Your task to perform on an android device: Search for a 1/4" hex shank drill bit on Lowe's. Image 0: 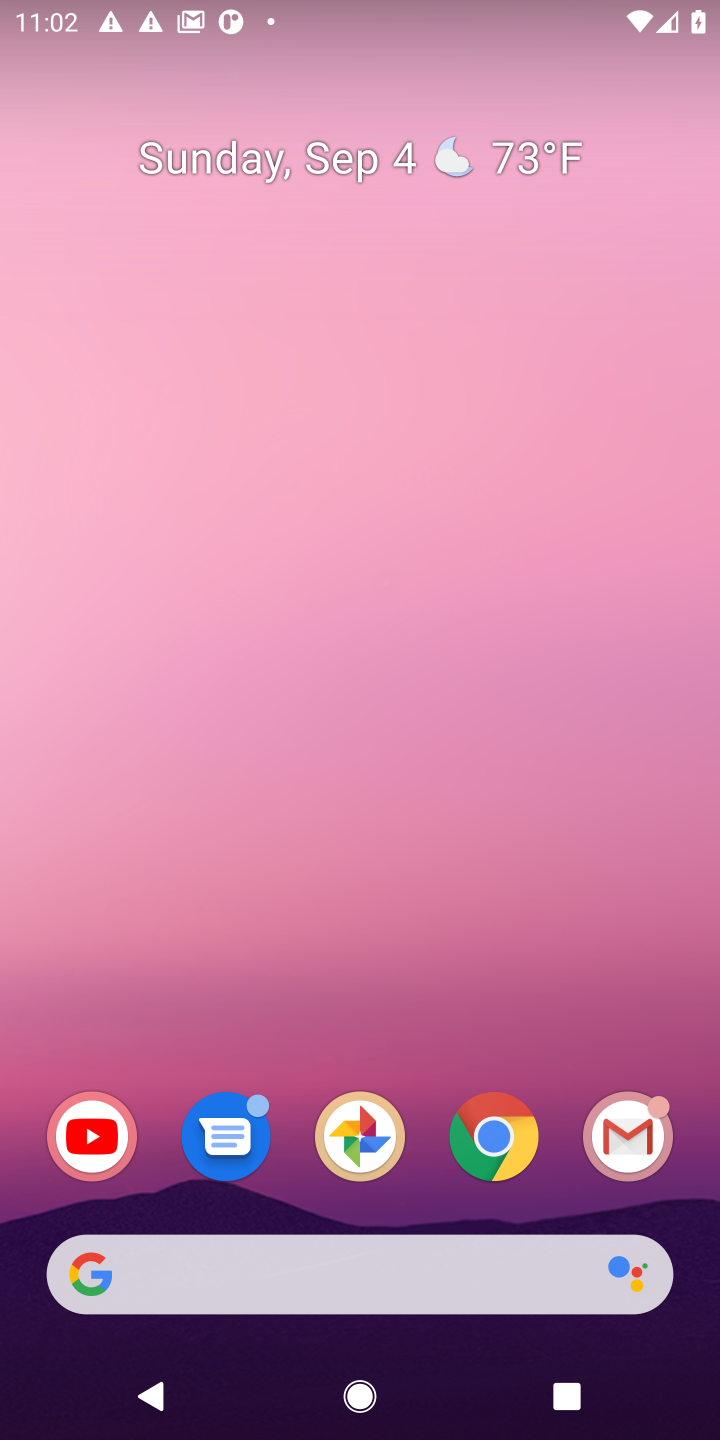
Step 0: click (485, 1131)
Your task to perform on an android device: Search for a 1/4" hex shank drill bit on Lowe's. Image 1: 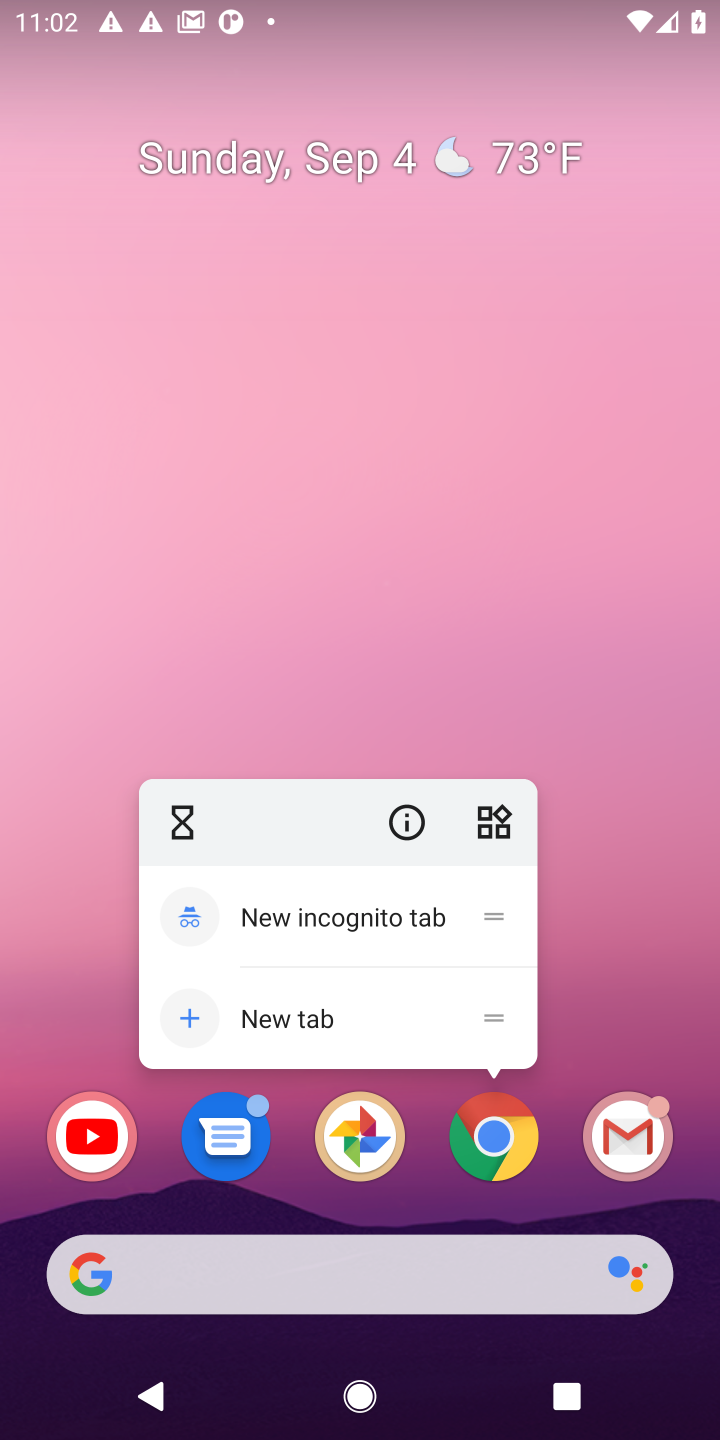
Step 1: click (485, 1134)
Your task to perform on an android device: Search for a 1/4" hex shank drill bit on Lowe's. Image 2: 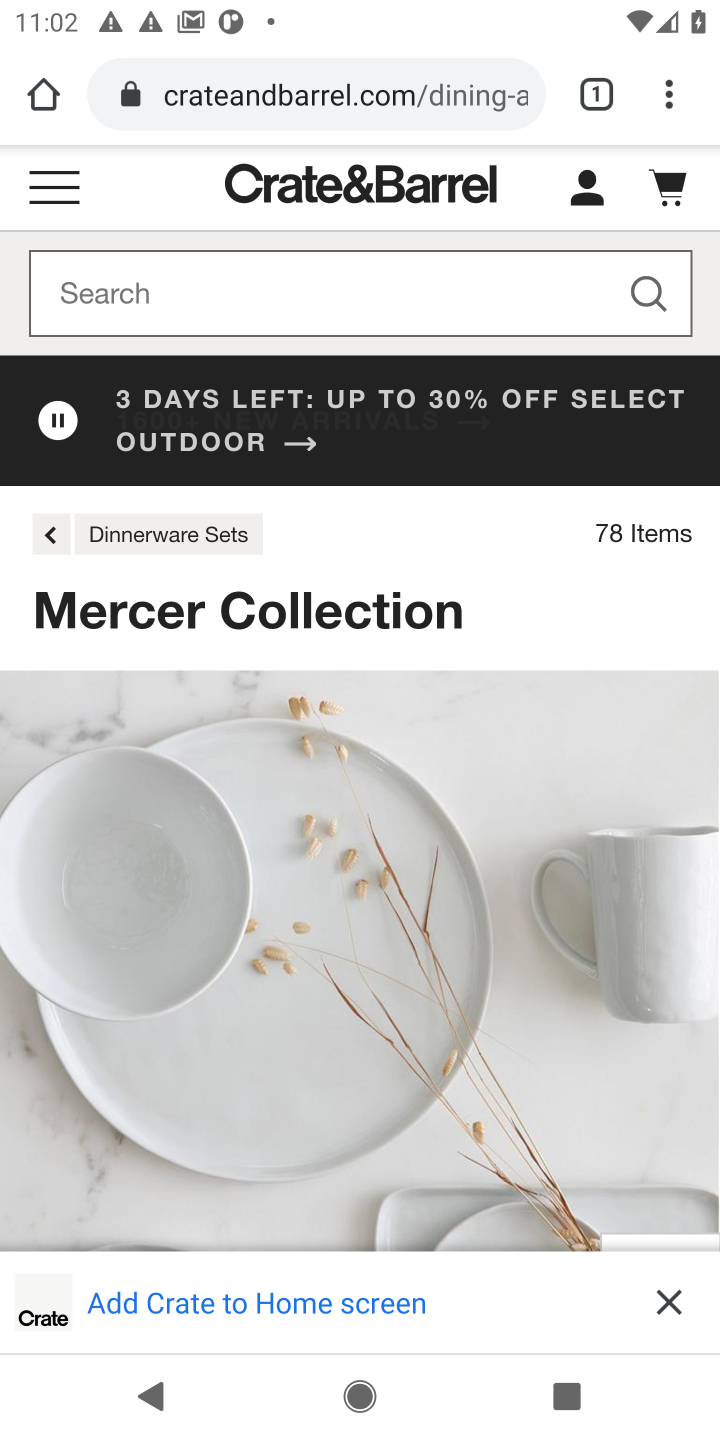
Step 2: click (441, 102)
Your task to perform on an android device: Search for a 1/4" hex shank drill bit on Lowe's. Image 3: 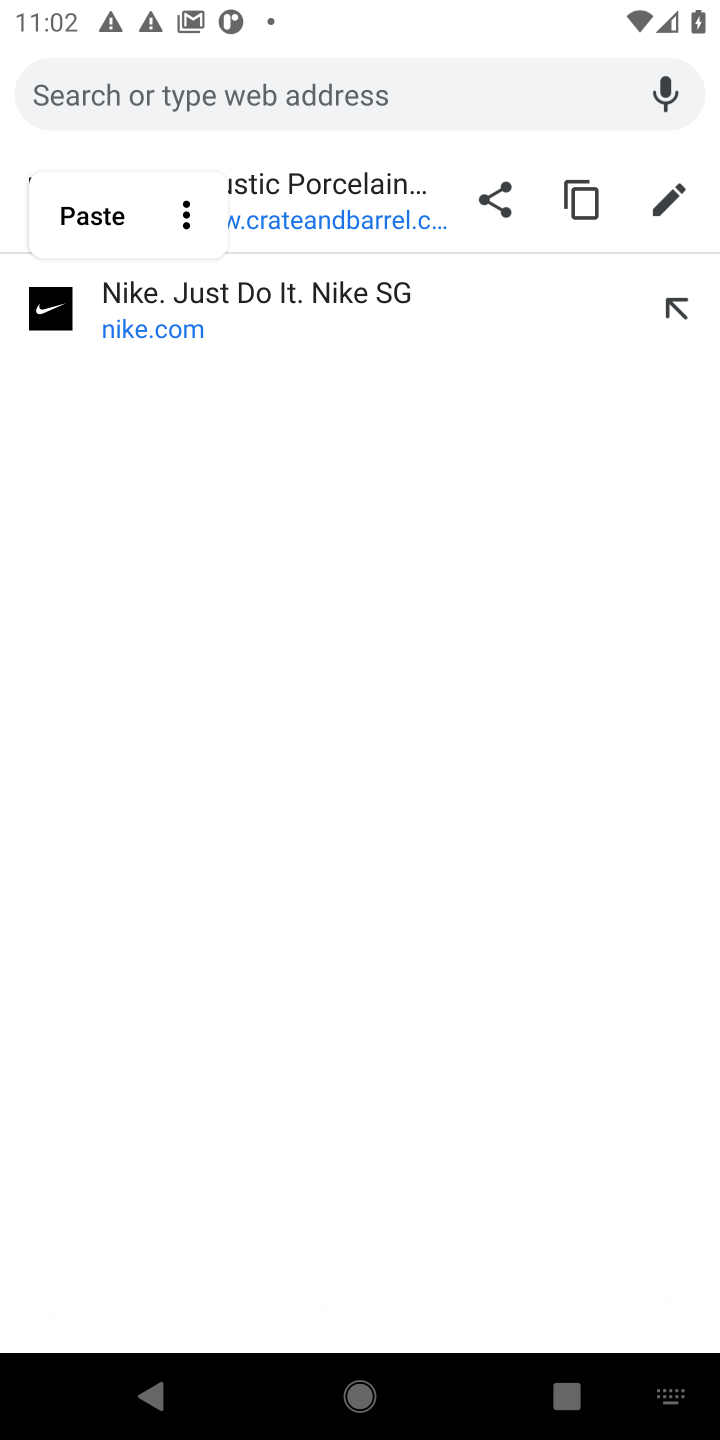
Step 3: type "Lowe's"
Your task to perform on an android device: Search for a 1/4" hex shank drill bit on Lowe's. Image 4: 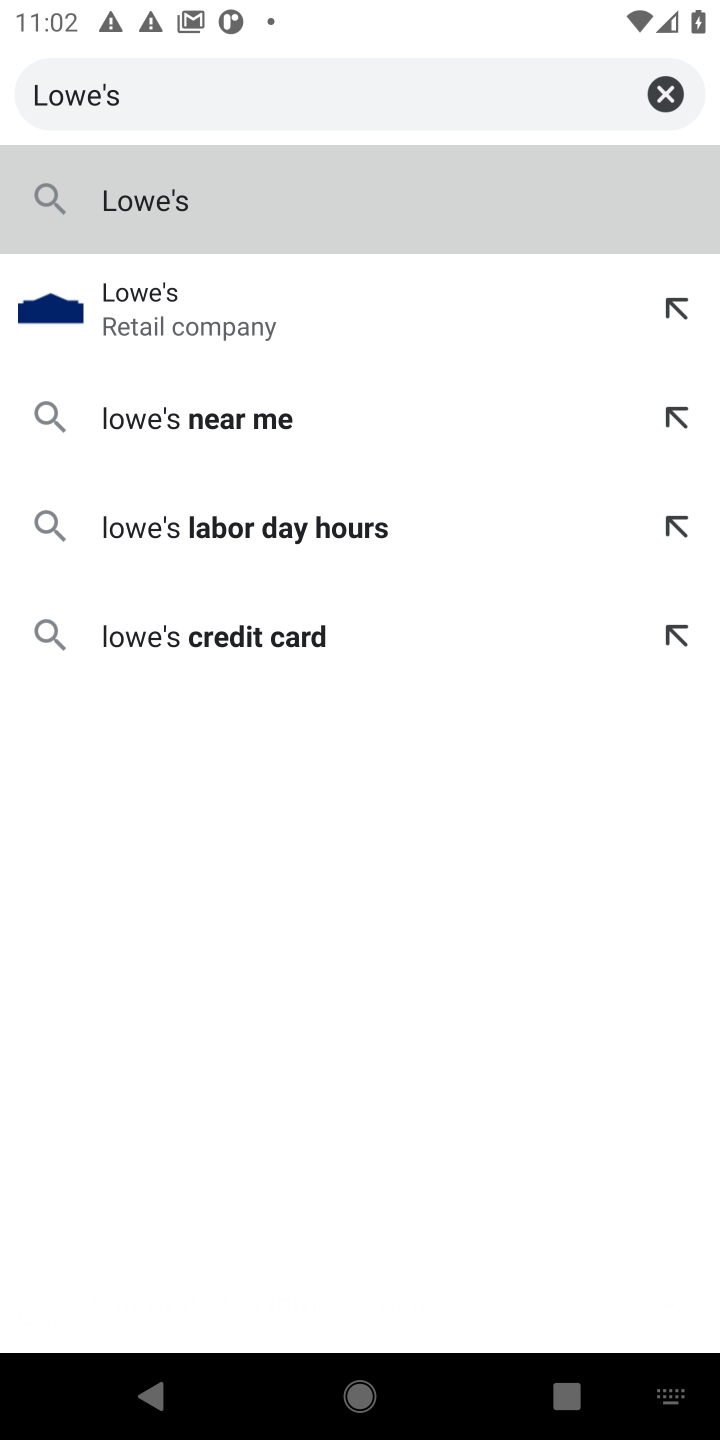
Step 4: press enter
Your task to perform on an android device: Search for a 1/4" hex shank drill bit on Lowe's. Image 5: 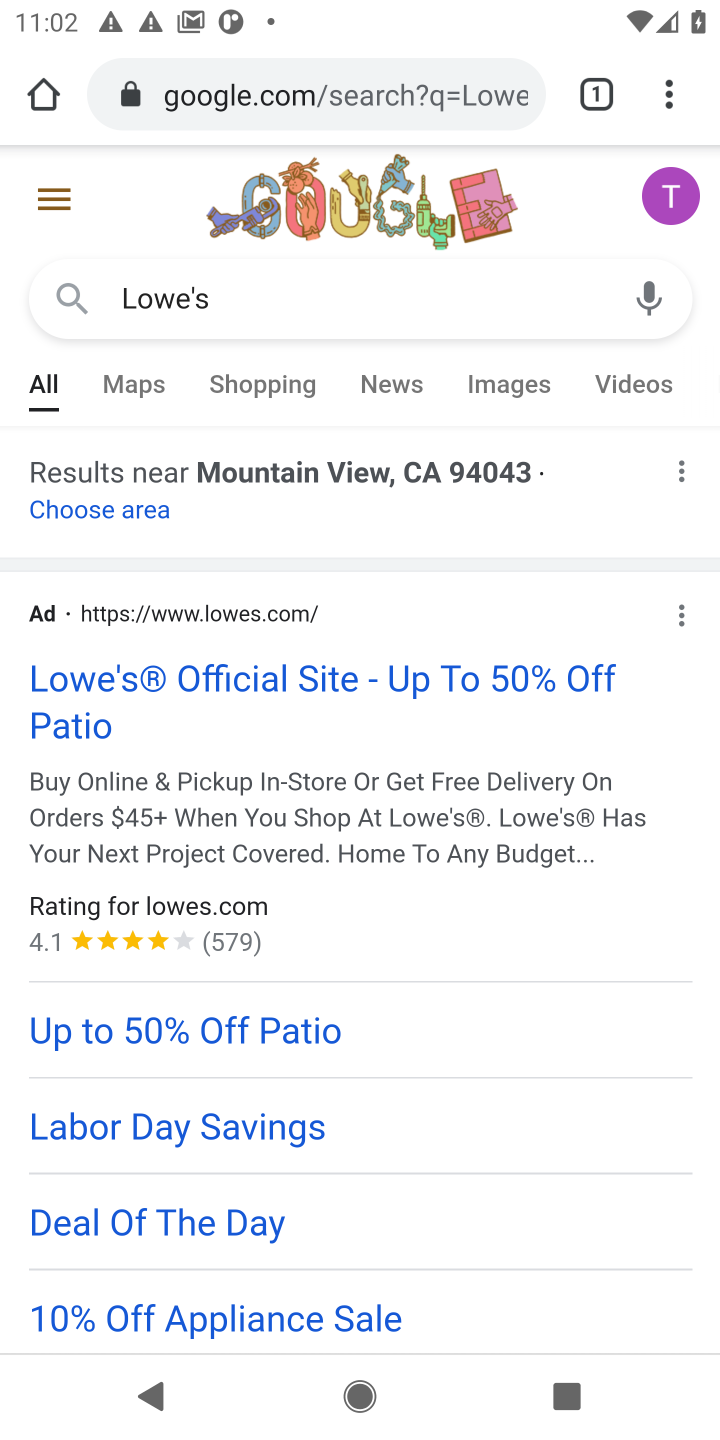
Step 5: click (247, 670)
Your task to perform on an android device: Search for a 1/4" hex shank drill bit on Lowe's. Image 6: 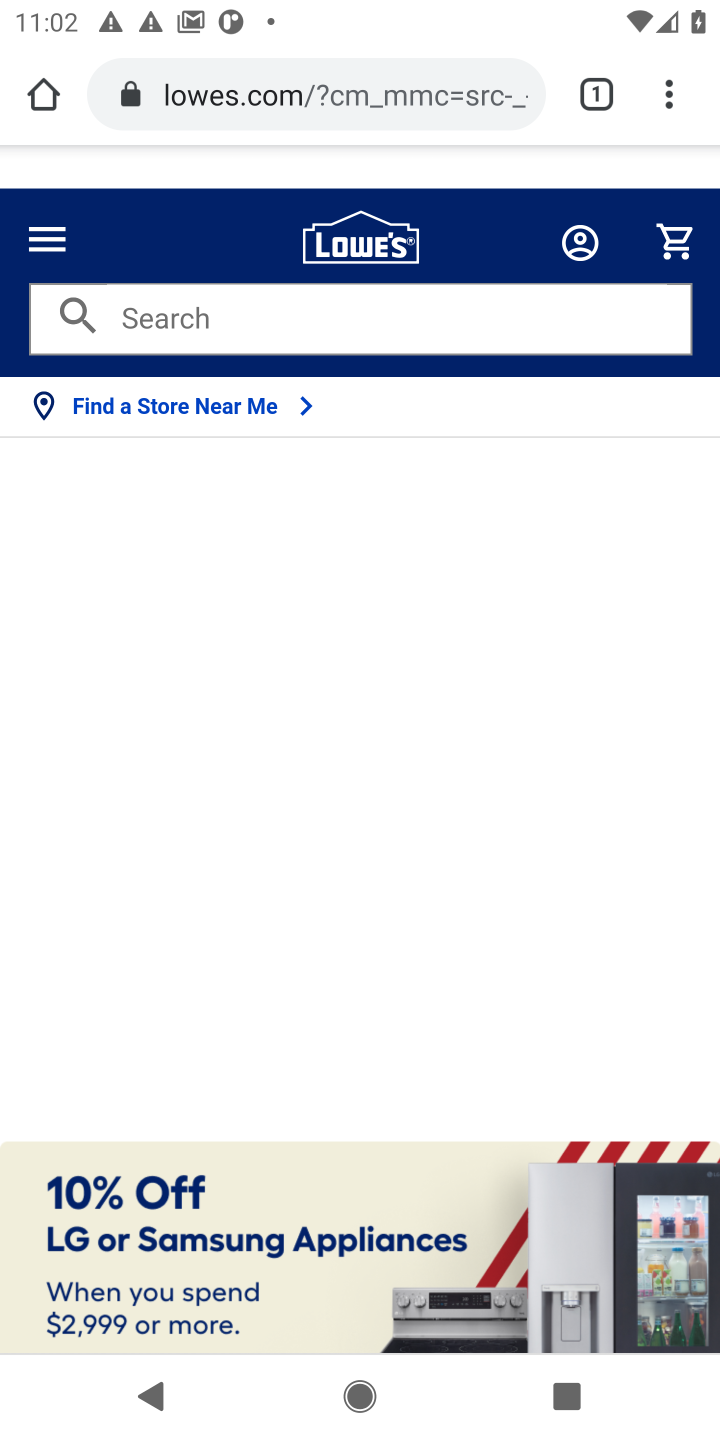
Step 6: click (300, 311)
Your task to perform on an android device: Search for a 1/4" hex shank drill bit on Lowe's. Image 7: 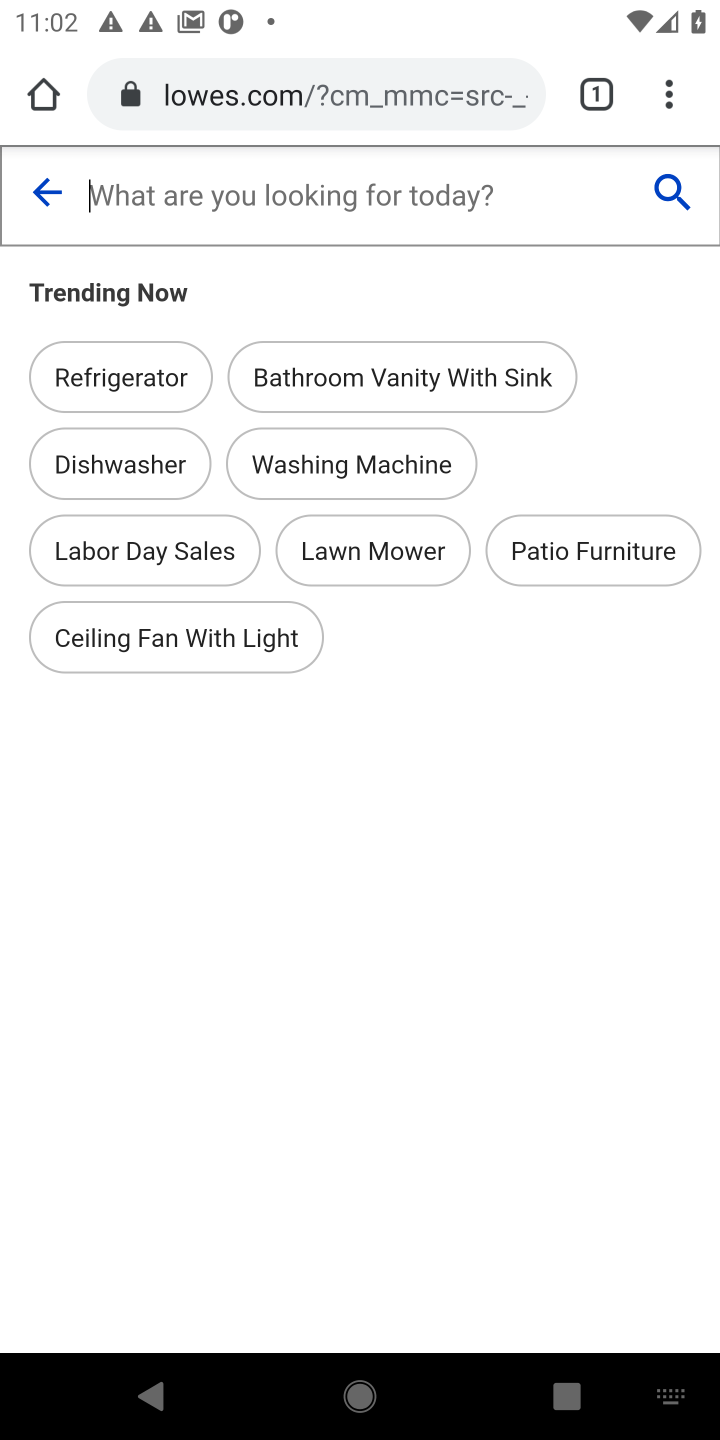
Step 7: press enter
Your task to perform on an android device: Search for a 1/4" hex shank drill bit on Lowe's. Image 8: 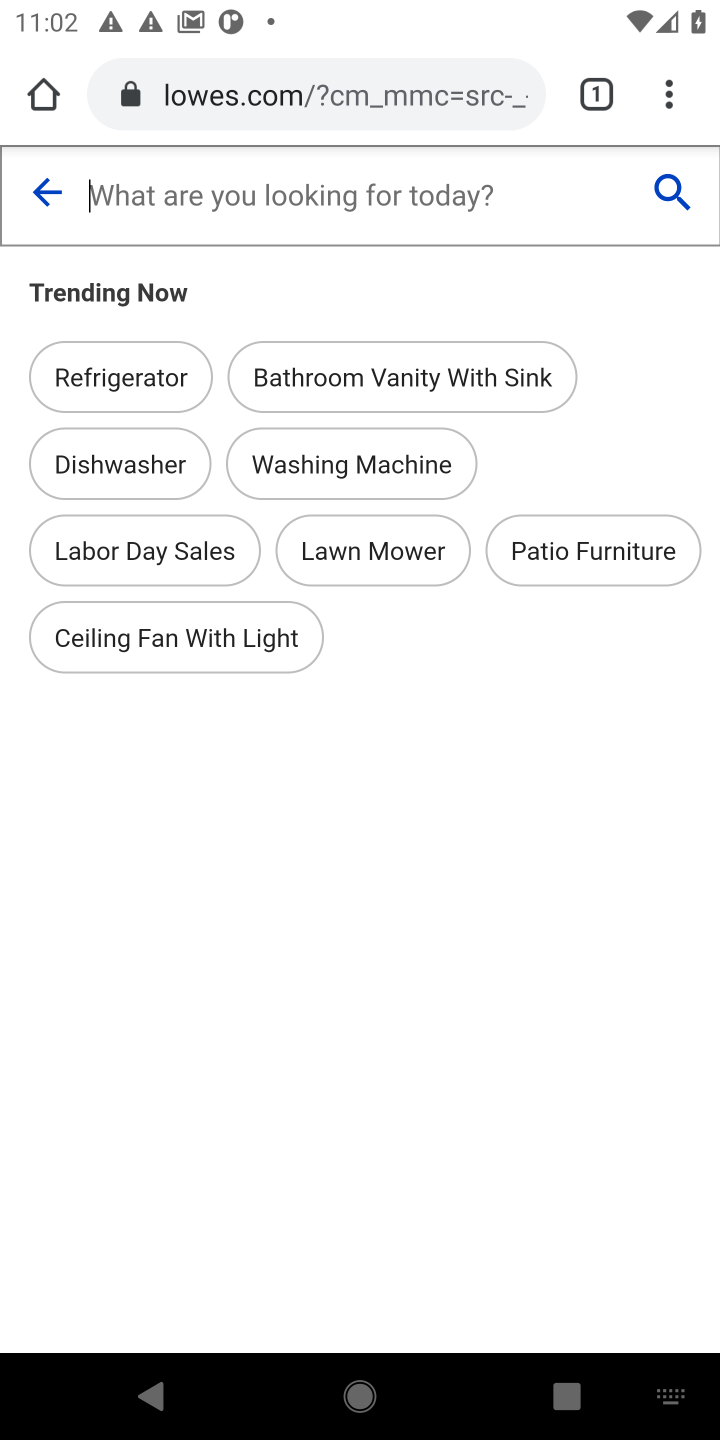
Step 8: type "1/4 hex shank drill bit"
Your task to perform on an android device: Search for a 1/4" hex shank drill bit on Lowe's. Image 9: 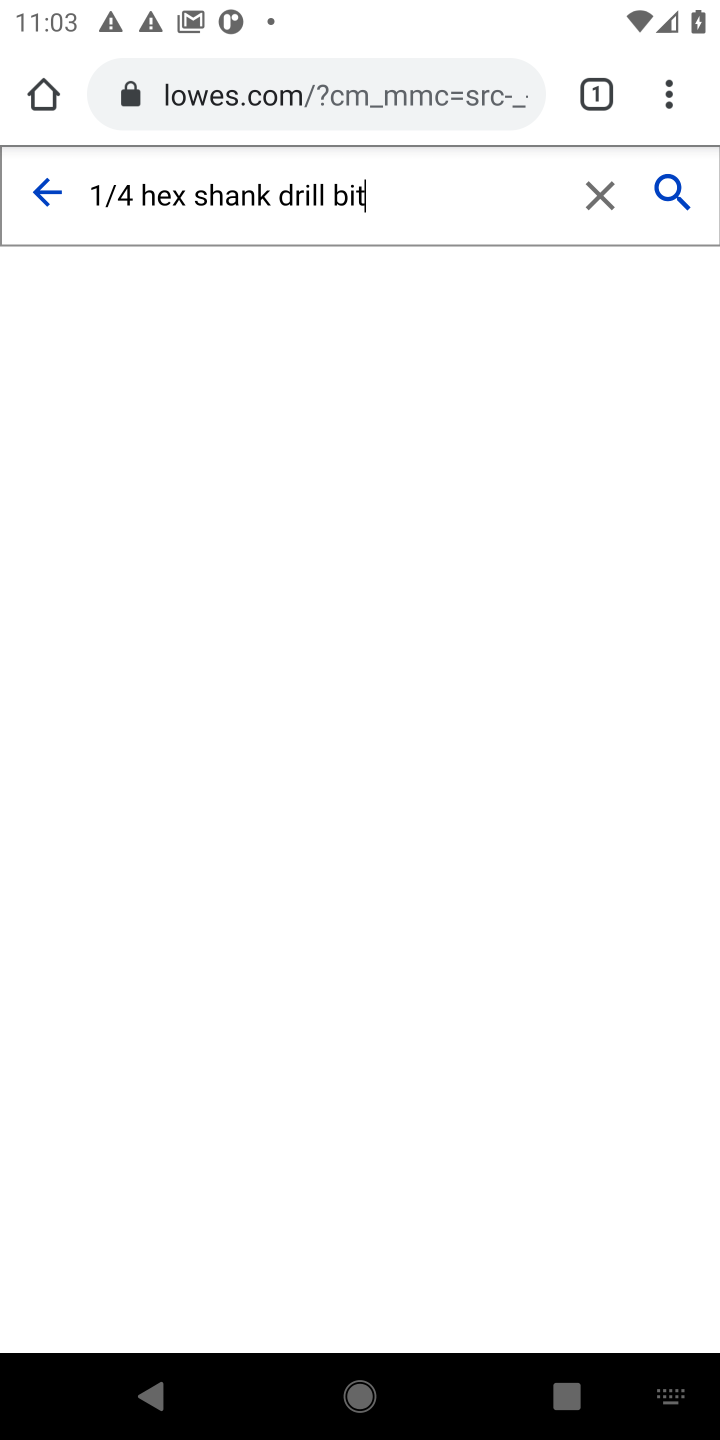
Step 9: click (674, 181)
Your task to perform on an android device: Search for a 1/4" hex shank drill bit on Lowe's. Image 10: 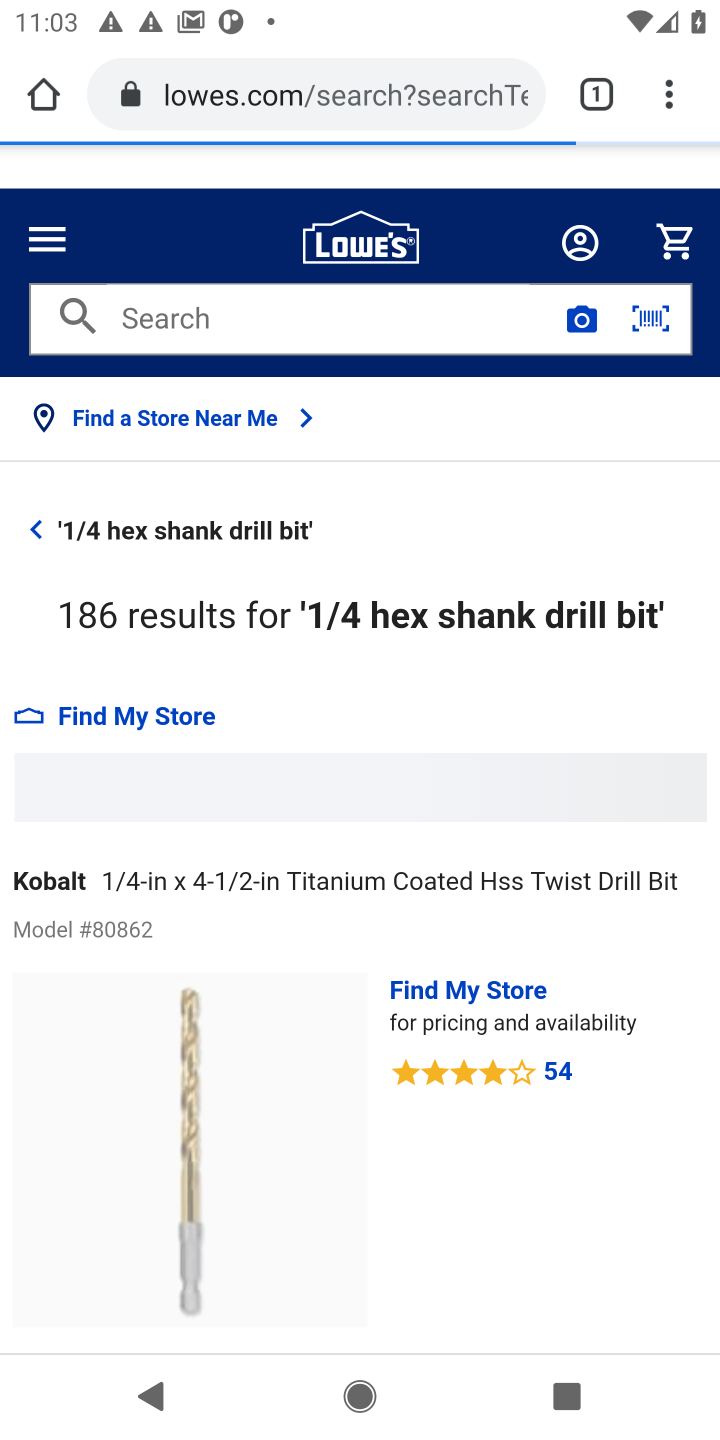
Step 10: drag from (339, 1201) to (429, 574)
Your task to perform on an android device: Search for a 1/4" hex shank drill bit on Lowe's. Image 11: 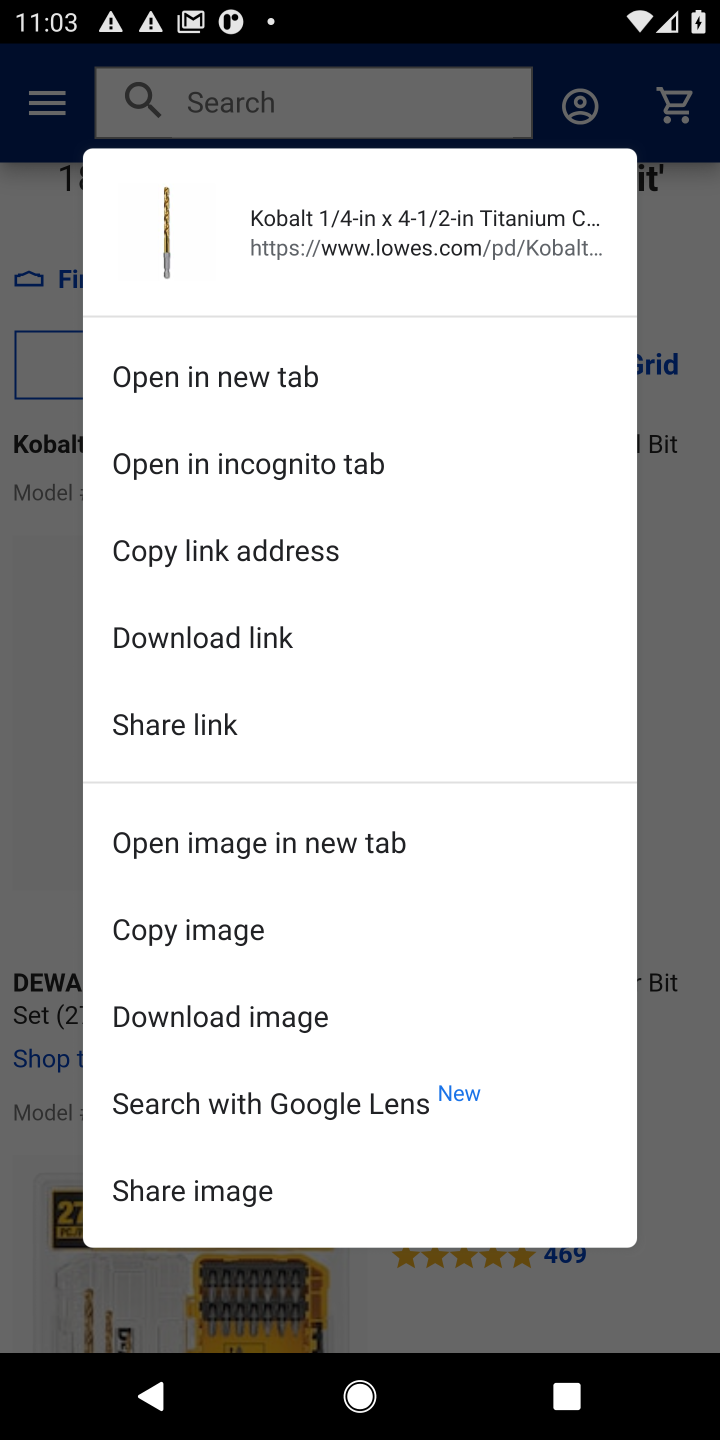
Step 11: click (679, 790)
Your task to perform on an android device: Search for a 1/4" hex shank drill bit on Lowe's. Image 12: 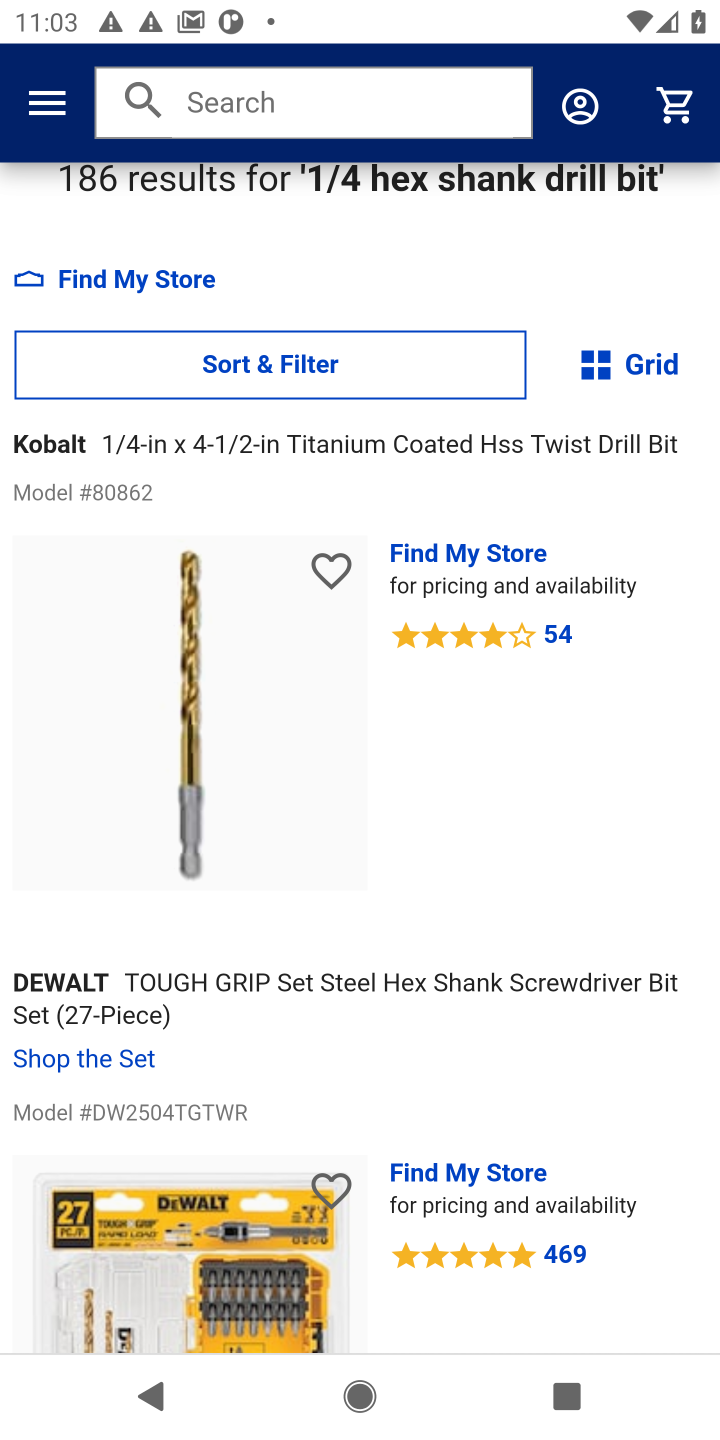
Step 12: task complete